Your task to perform on an android device: Open the phone app and click the voicemail tab. Image 0: 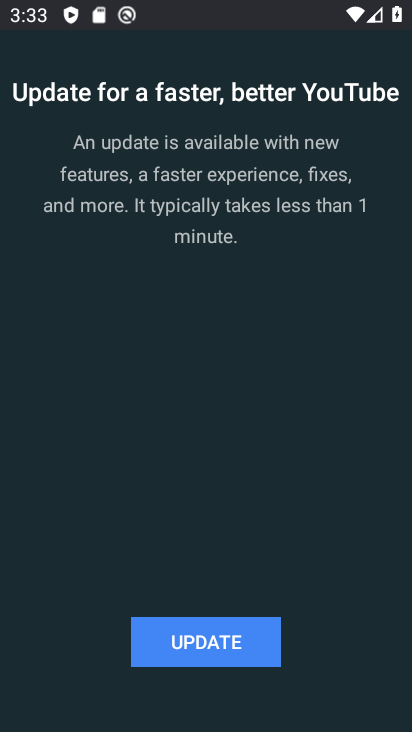
Step 0: press home button
Your task to perform on an android device: Open the phone app and click the voicemail tab. Image 1: 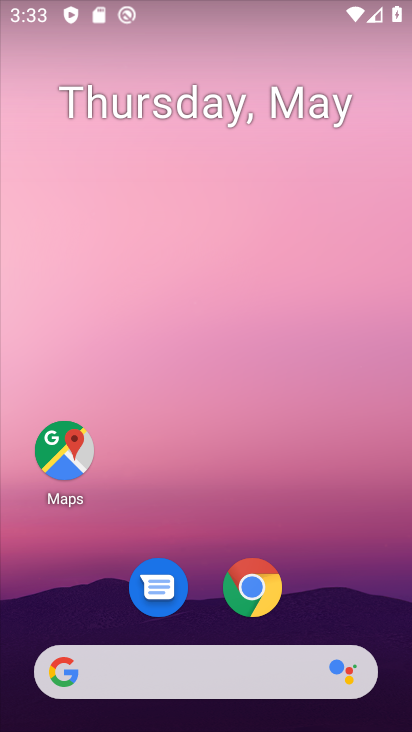
Step 1: drag from (339, 571) to (346, 118)
Your task to perform on an android device: Open the phone app and click the voicemail tab. Image 2: 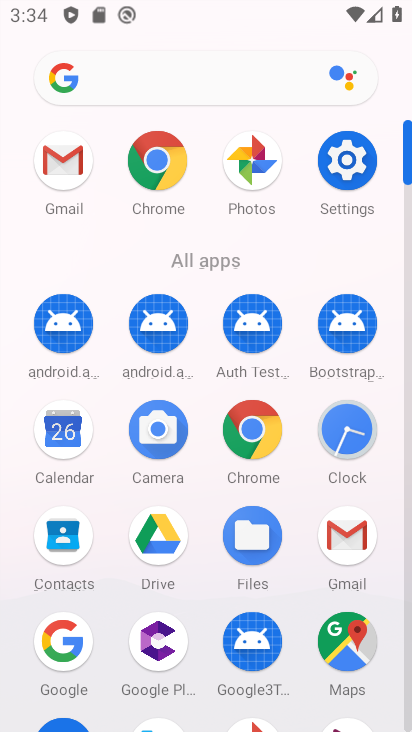
Step 2: drag from (390, 607) to (390, 274)
Your task to perform on an android device: Open the phone app and click the voicemail tab. Image 3: 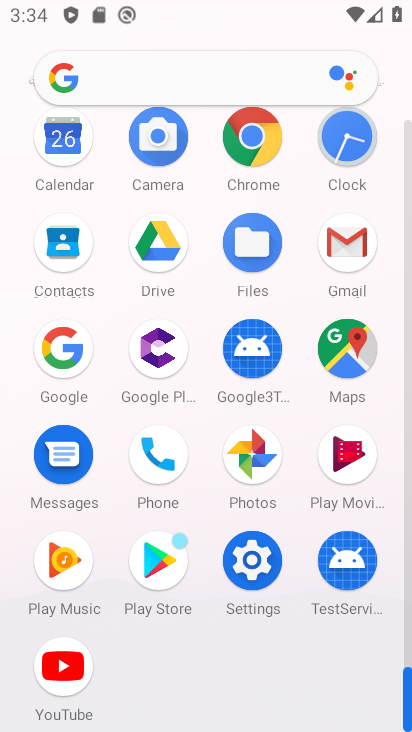
Step 3: click (153, 473)
Your task to perform on an android device: Open the phone app and click the voicemail tab. Image 4: 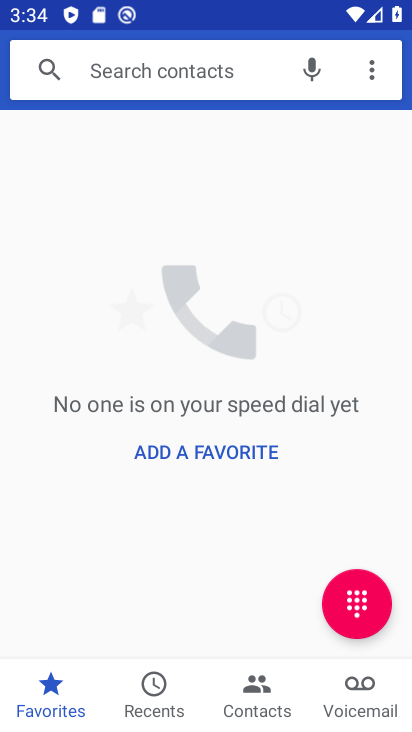
Step 4: click (355, 678)
Your task to perform on an android device: Open the phone app and click the voicemail tab. Image 5: 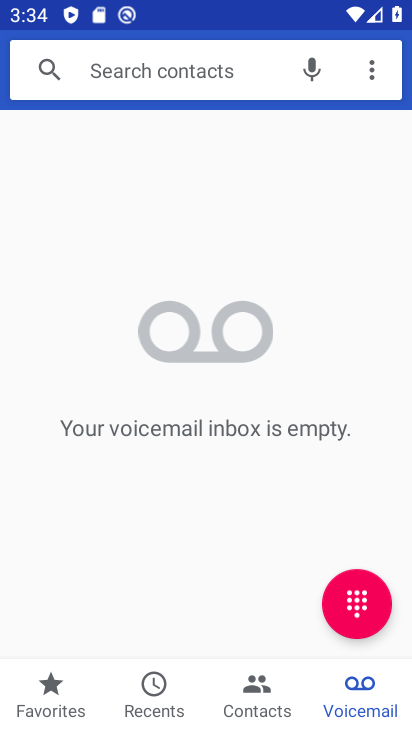
Step 5: task complete